Your task to perform on an android device: open wifi settings Image 0: 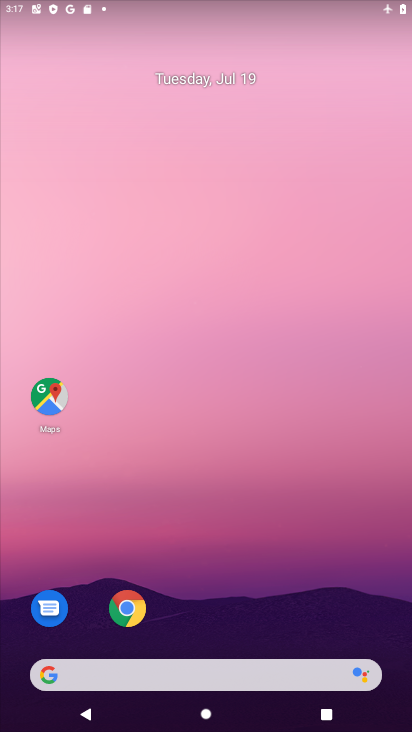
Step 0: drag from (307, 570) to (179, 18)
Your task to perform on an android device: open wifi settings Image 1: 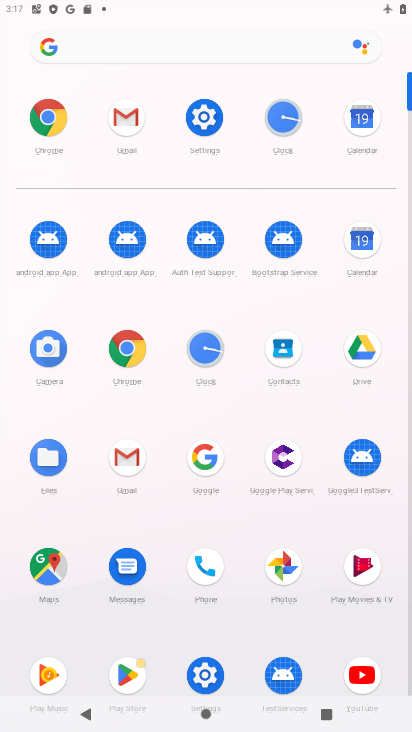
Step 1: click (206, 117)
Your task to perform on an android device: open wifi settings Image 2: 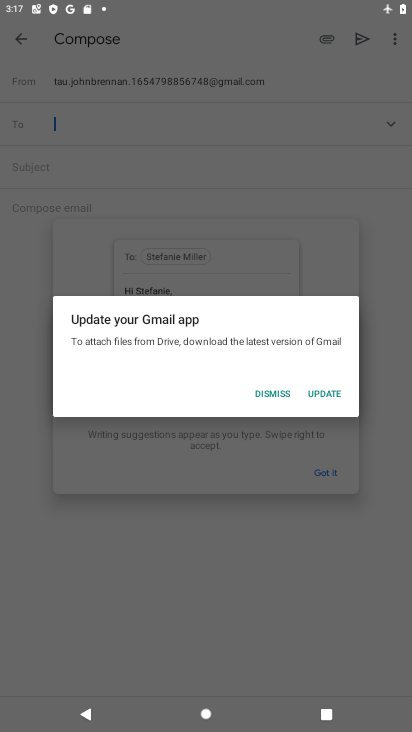
Step 2: press home button
Your task to perform on an android device: open wifi settings Image 3: 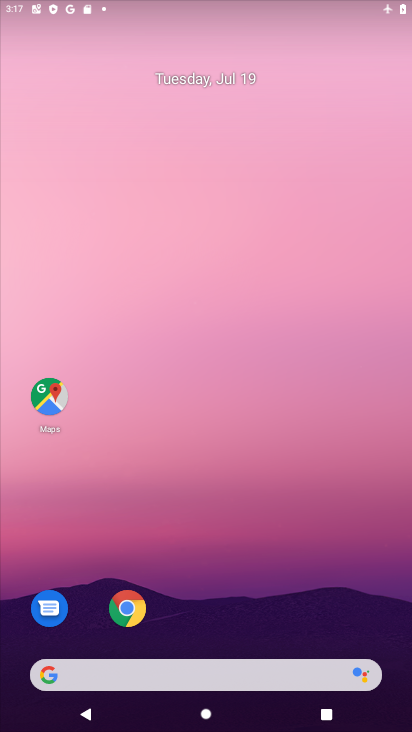
Step 3: drag from (320, 465) to (219, 57)
Your task to perform on an android device: open wifi settings Image 4: 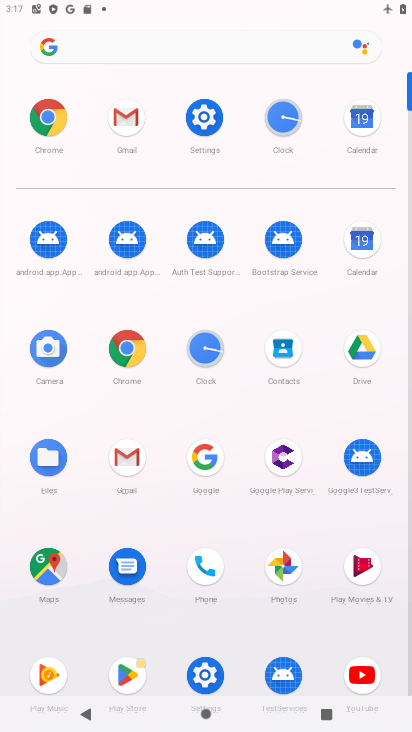
Step 4: click (209, 105)
Your task to perform on an android device: open wifi settings Image 5: 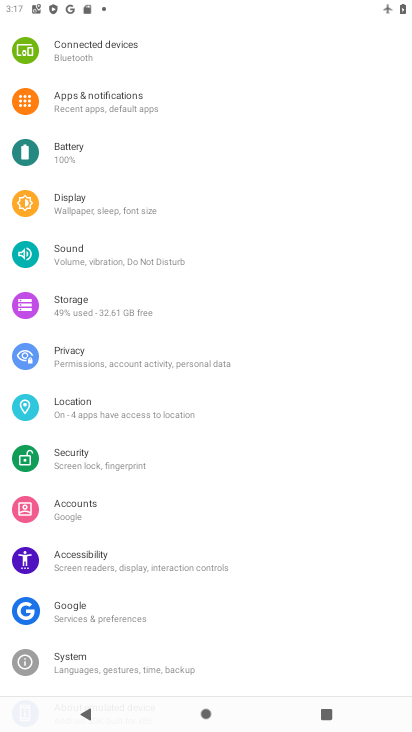
Step 5: drag from (199, 88) to (155, 360)
Your task to perform on an android device: open wifi settings Image 6: 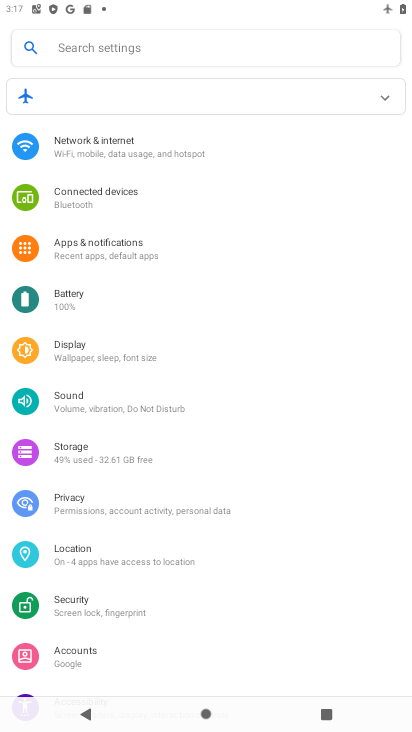
Step 6: click (75, 156)
Your task to perform on an android device: open wifi settings Image 7: 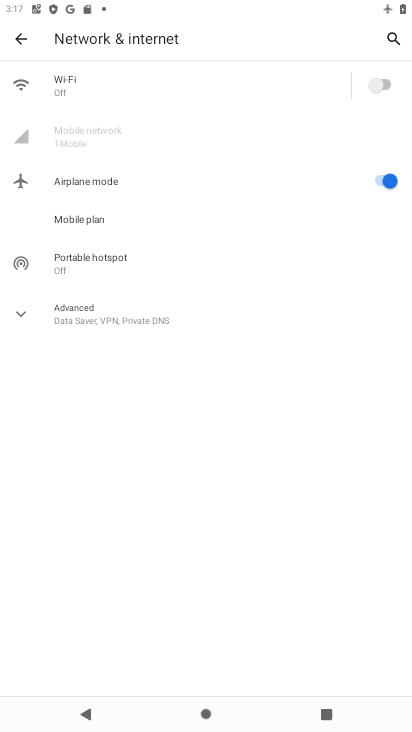
Step 7: click (115, 71)
Your task to perform on an android device: open wifi settings Image 8: 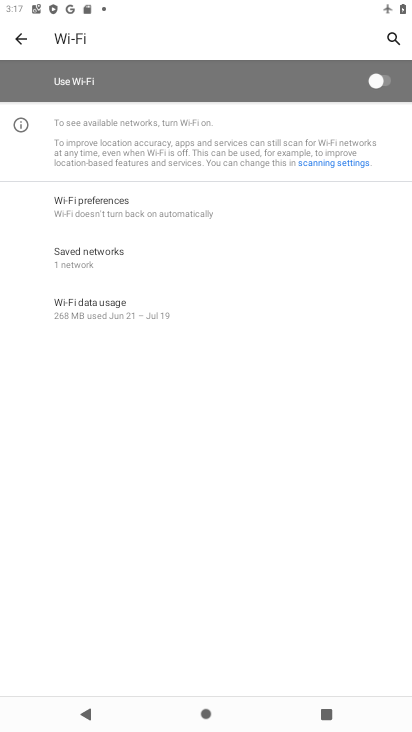
Step 8: click (391, 87)
Your task to perform on an android device: open wifi settings Image 9: 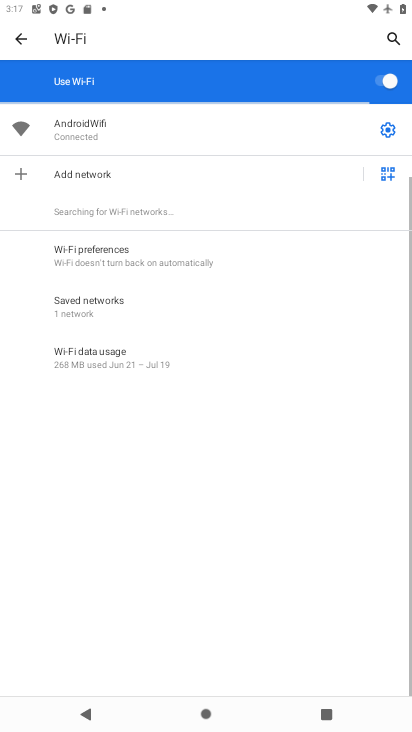
Step 9: click (383, 129)
Your task to perform on an android device: open wifi settings Image 10: 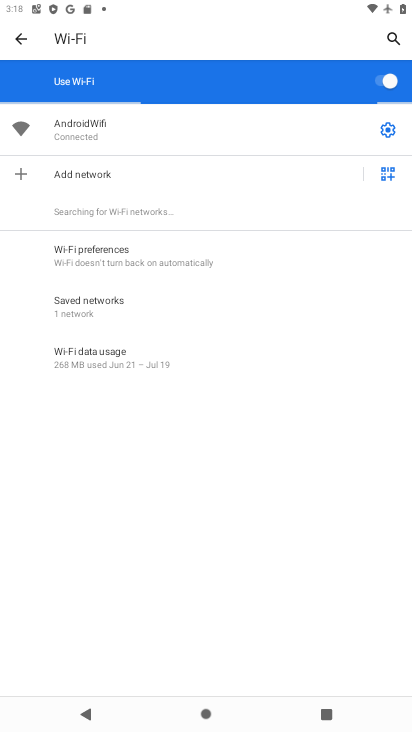
Step 10: click (396, 129)
Your task to perform on an android device: open wifi settings Image 11: 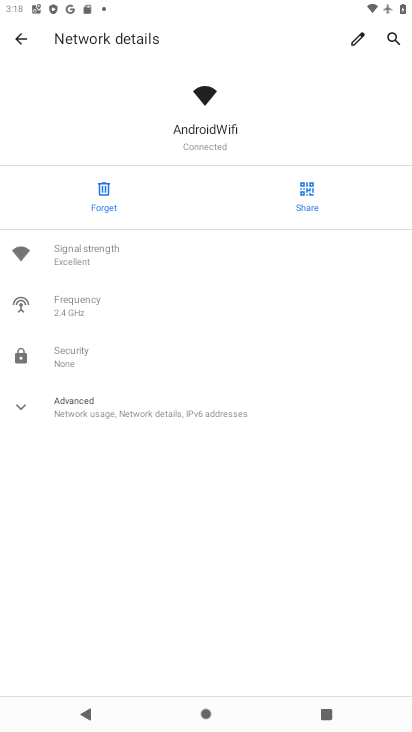
Step 11: task complete